Your task to perform on an android device: turn on priority inbox in the gmail app Image 0: 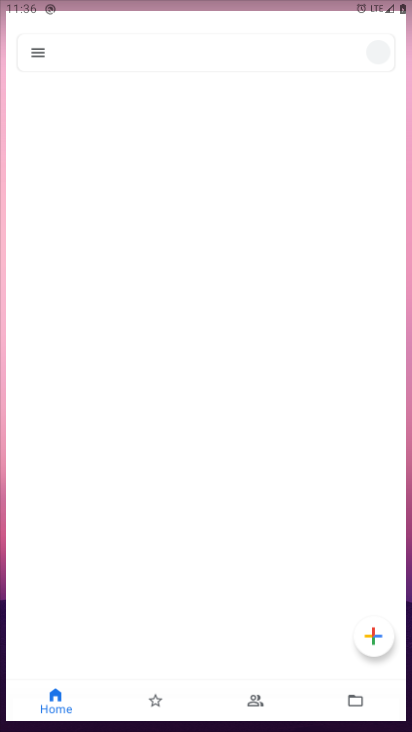
Step 0: press home button
Your task to perform on an android device: turn on priority inbox in the gmail app Image 1: 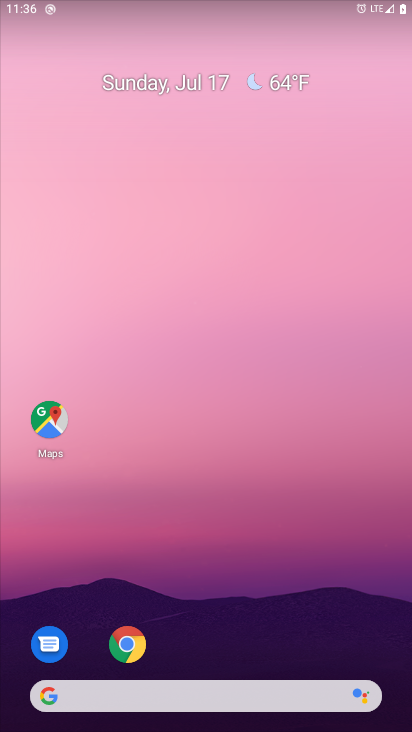
Step 1: drag from (223, 649) to (249, 195)
Your task to perform on an android device: turn on priority inbox in the gmail app Image 2: 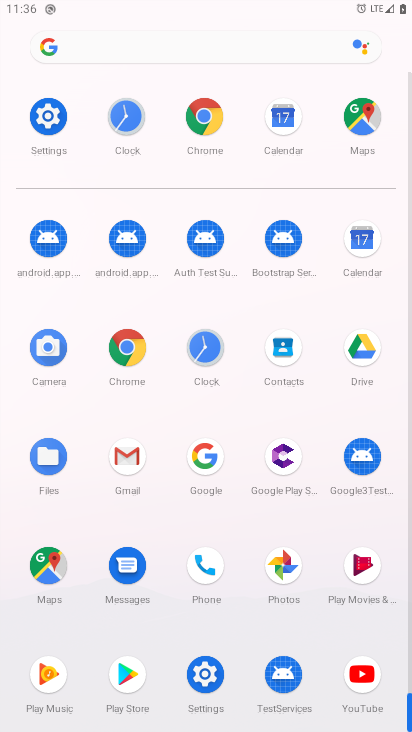
Step 2: click (121, 446)
Your task to perform on an android device: turn on priority inbox in the gmail app Image 3: 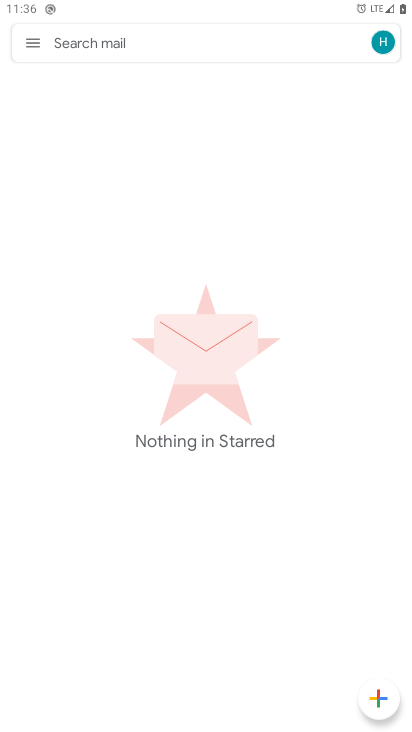
Step 3: click (32, 43)
Your task to perform on an android device: turn on priority inbox in the gmail app Image 4: 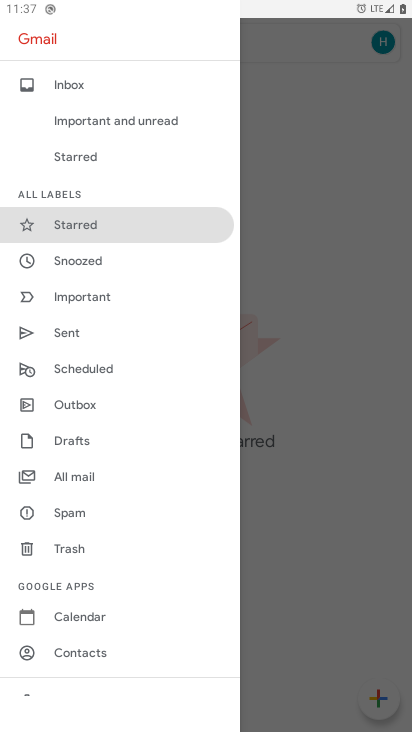
Step 4: drag from (145, 578) to (168, 192)
Your task to perform on an android device: turn on priority inbox in the gmail app Image 5: 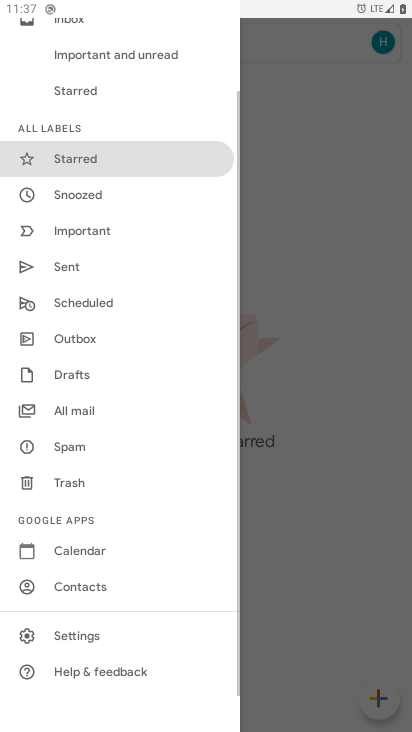
Step 5: click (74, 638)
Your task to perform on an android device: turn on priority inbox in the gmail app Image 6: 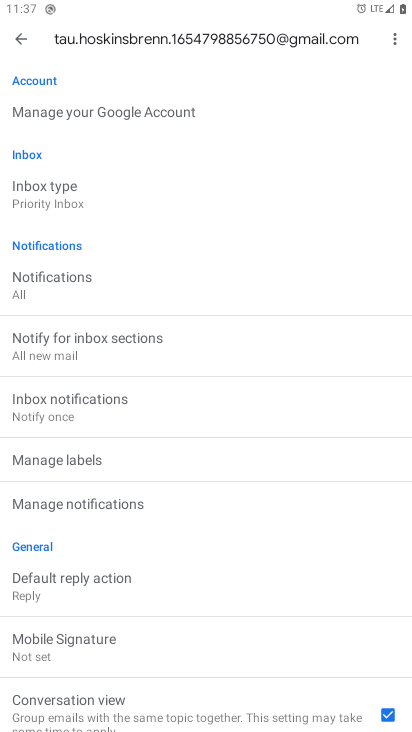
Step 6: task complete